Your task to perform on an android device: toggle sleep mode Image 0: 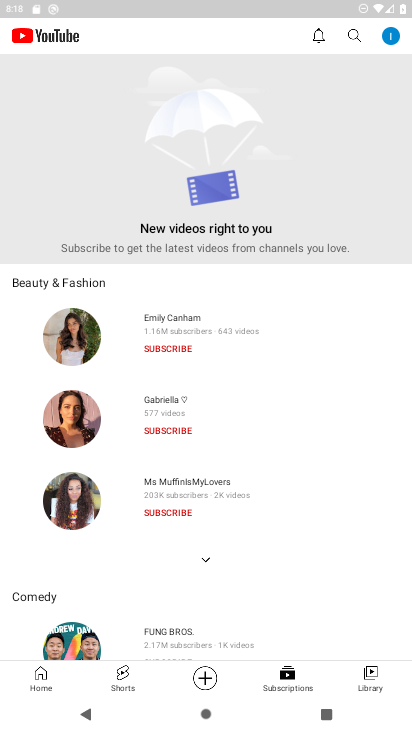
Step 0: press home button
Your task to perform on an android device: toggle sleep mode Image 1: 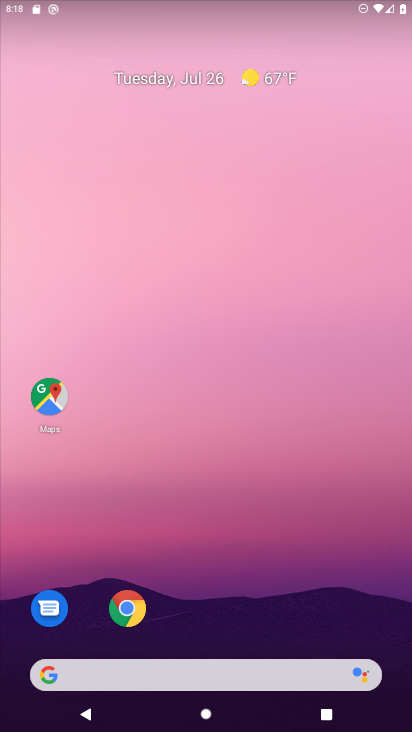
Step 1: drag from (199, 637) to (181, 11)
Your task to perform on an android device: toggle sleep mode Image 2: 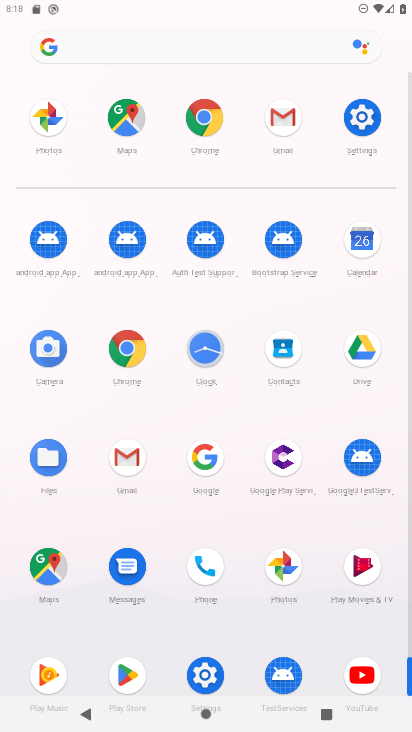
Step 2: click (201, 672)
Your task to perform on an android device: toggle sleep mode Image 3: 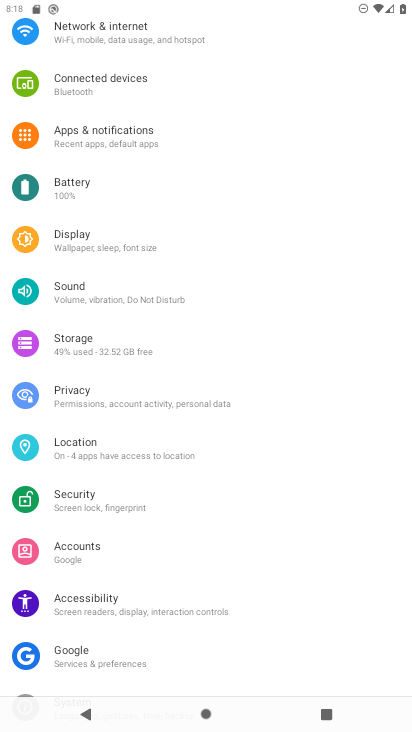
Step 3: drag from (161, 88) to (165, 382)
Your task to perform on an android device: toggle sleep mode Image 4: 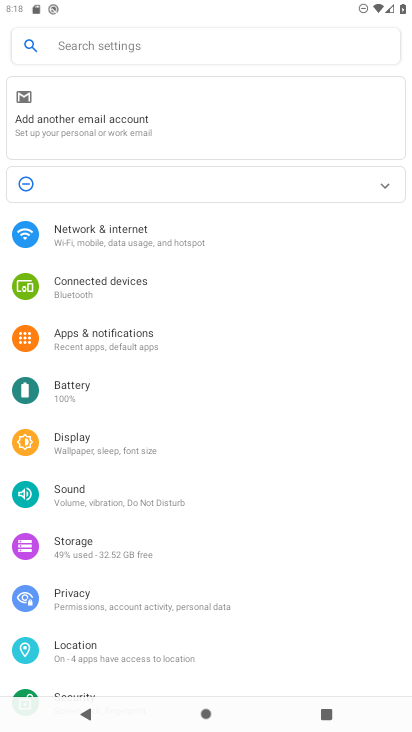
Step 4: click (191, 38)
Your task to perform on an android device: toggle sleep mode Image 5: 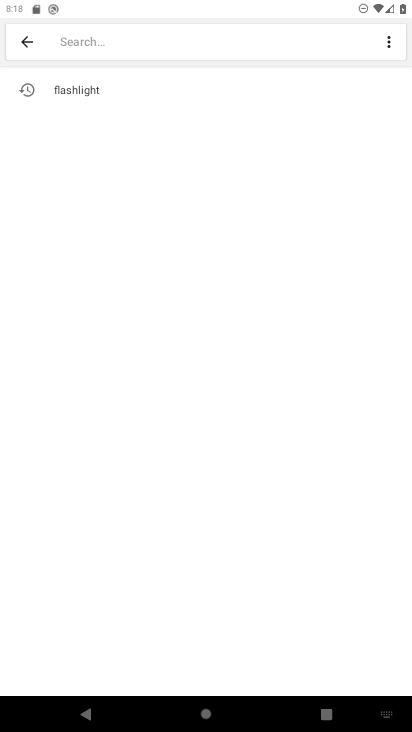
Step 5: type ""
Your task to perform on an android device: toggle sleep mode Image 6: 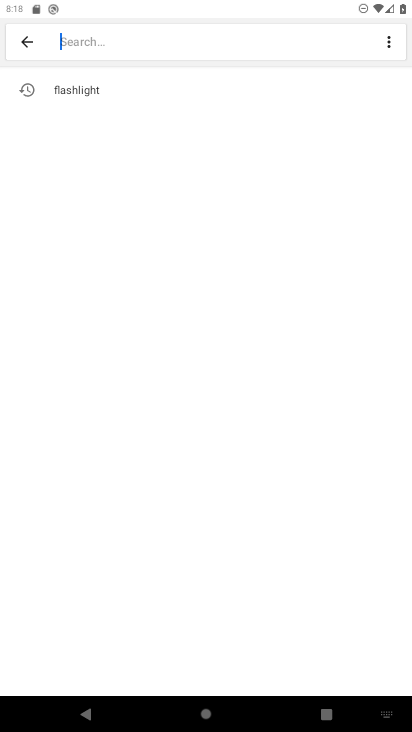
Step 6: type "sleep mode"
Your task to perform on an android device: toggle sleep mode Image 7: 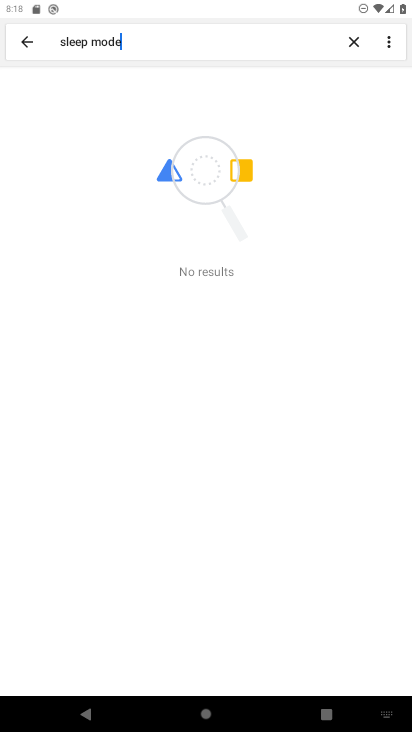
Step 7: task complete